Your task to perform on an android device: empty trash in the gmail app Image 0: 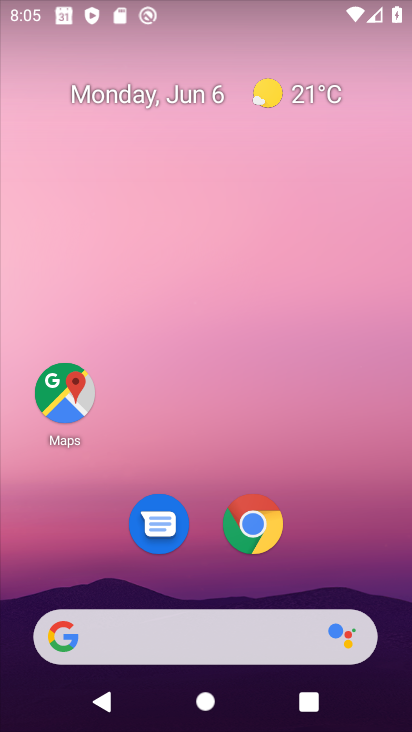
Step 0: drag from (201, 451) to (208, 0)
Your task to perform on an android device: empty trash in the gmail app Image 1: 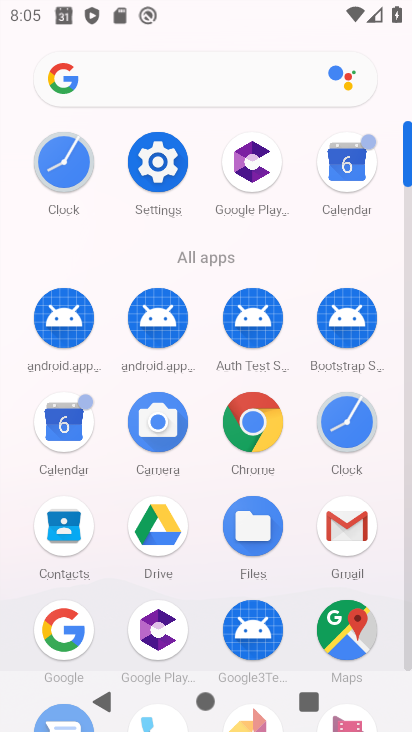
Step 1: click (337, 534)
Your task to perform on an android device: empty trash in the gmail app Image 2: 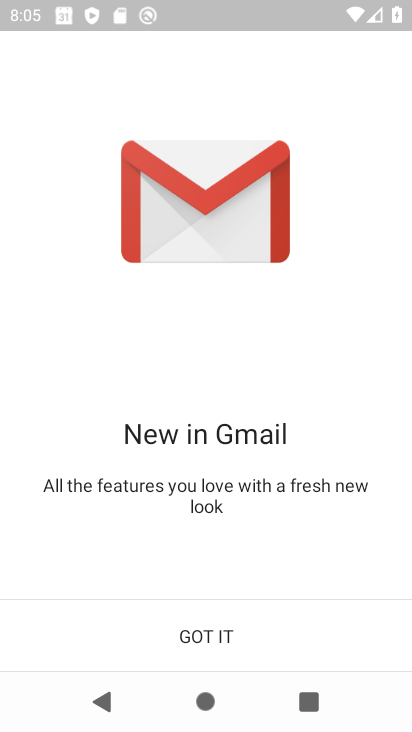
Step 2: click (242, 627)
Your task to perform on an android device: empty trash in the gmail app Image 3: 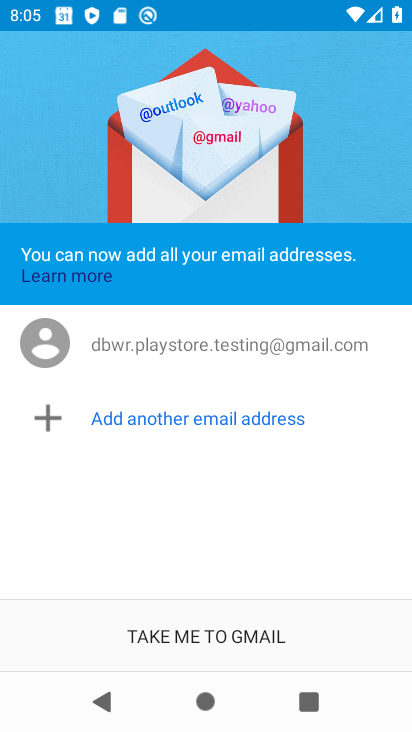
Step 3: click (245, 633)
Your task to perform on an android device: empty trash in the gmail app Image 4: 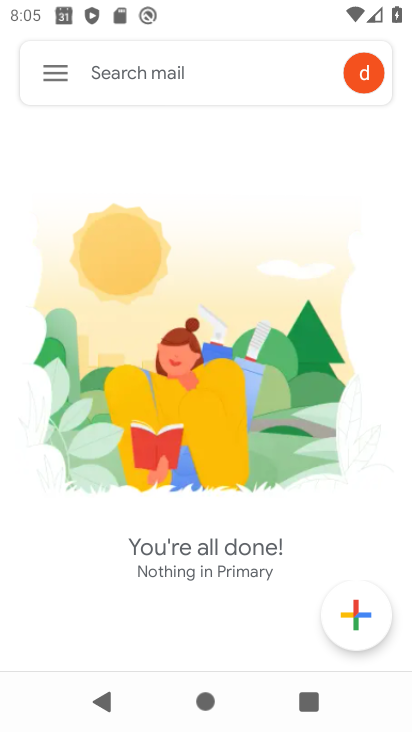
Step 4: click (48, 60)
Your task to perform on an android device: empty trash in the gmail app Image 5: 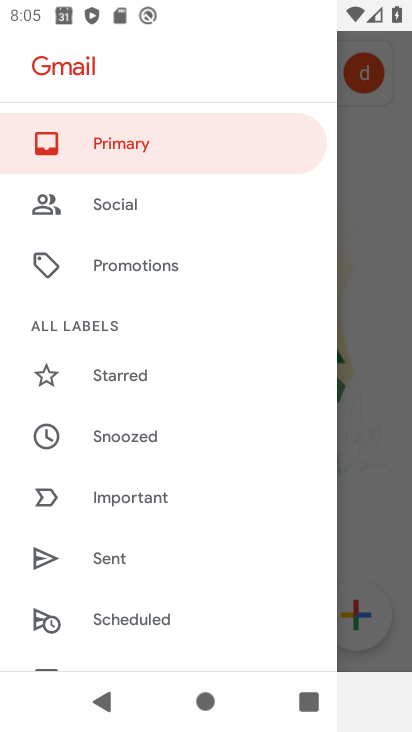
Step 5: drag from (177, 523) to (156, 256)
Your task to perform on an android device: empty trash in the gmail app Image 6: 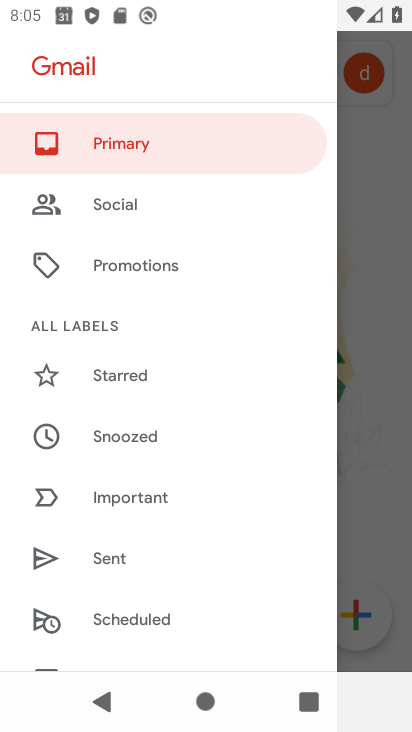
Step 6: drag from (178, 548) to (200, 131)
Your task to perform on an android device: empty trash in the gmail app Image 7: 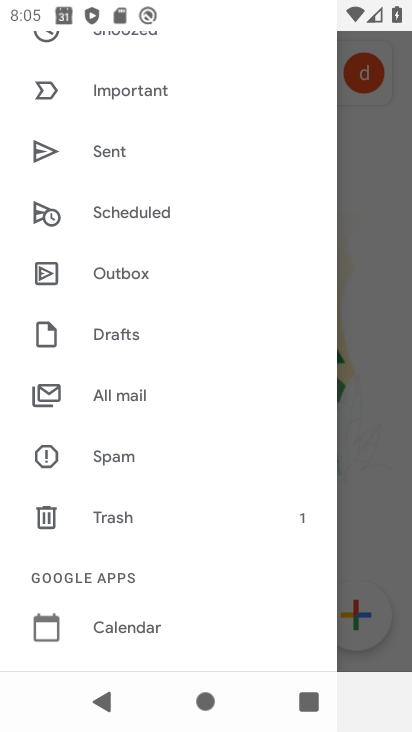
Step 7: click (139, 516)
Your task to perform on an android device: empty trash in the gmail app Image 8: 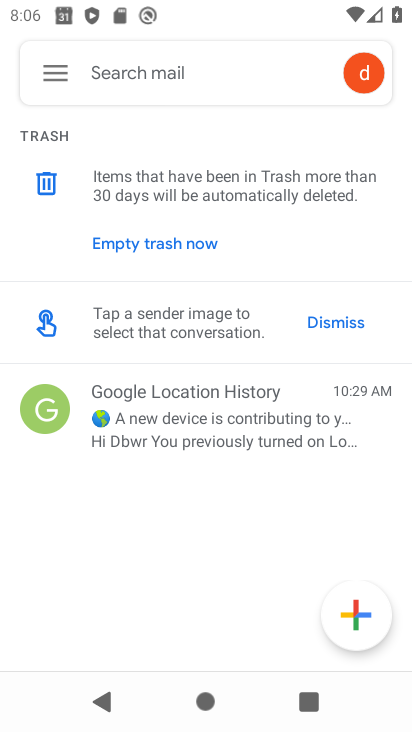
Step 8: click (159, 240)
Your task to perform on an android device: empty trash in the gmail app Image 9: 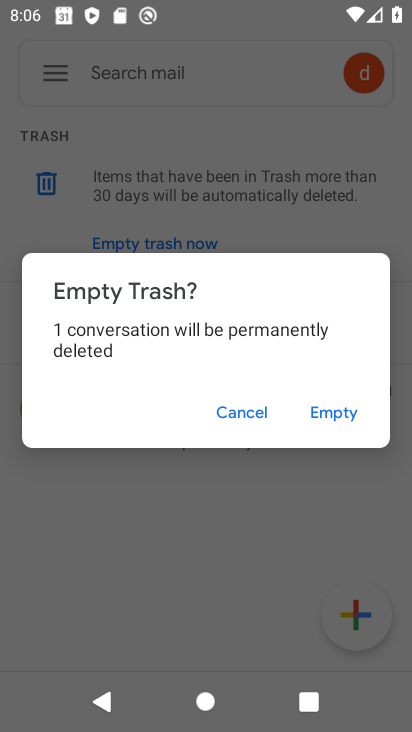
Step 9: click (336, 402)
Your task to perform on an android device: empty trash in the gmail app Image 10: 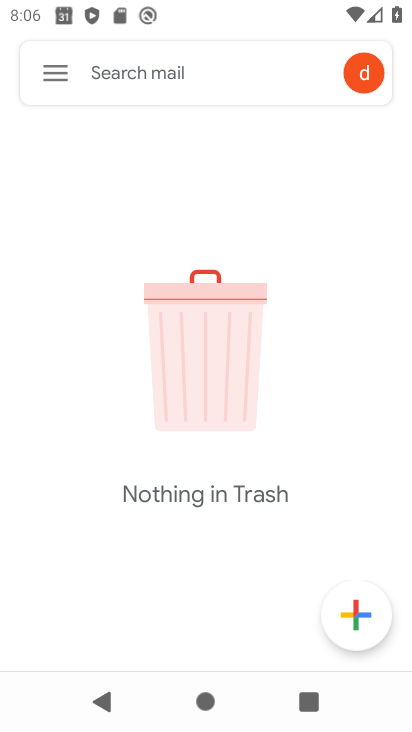
Step 10: task complete